Your task to perform on an android device: Open Maps and search for coffee Image 0: 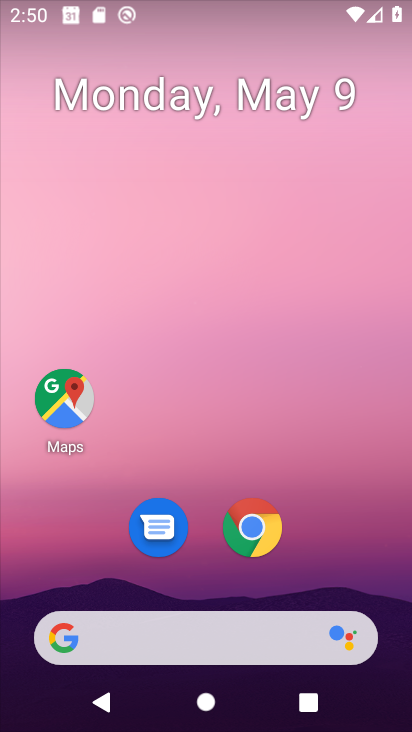
Step 0: drag from (248, 626) to (291, 1)
Your task to perform on an android device: Open Maps and search for coffee Image 1: 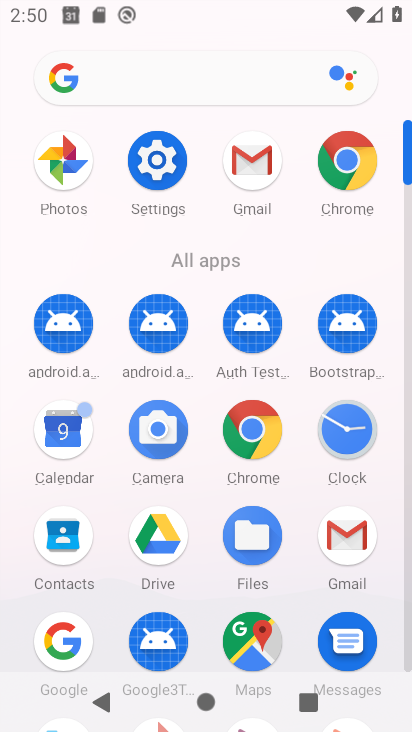
Step 1: drag from (213, 473) to (204, 280)
Your task to perform on an android device: Open Maps and search for coffee Image 2: 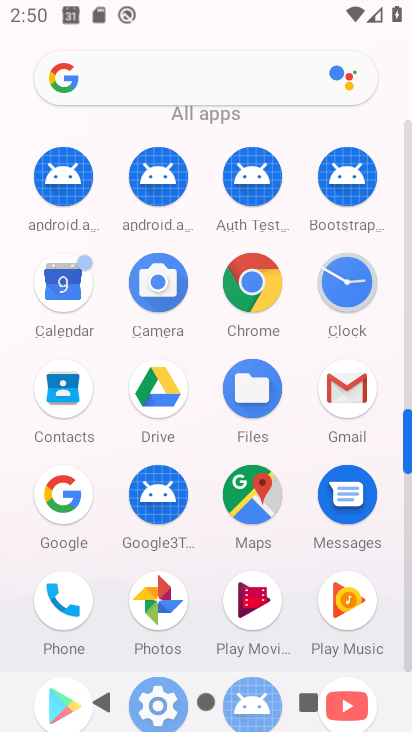
Step 2: click (259, 519)
Your task to perform on an android device: Open Maps and search for coffee Image 3: 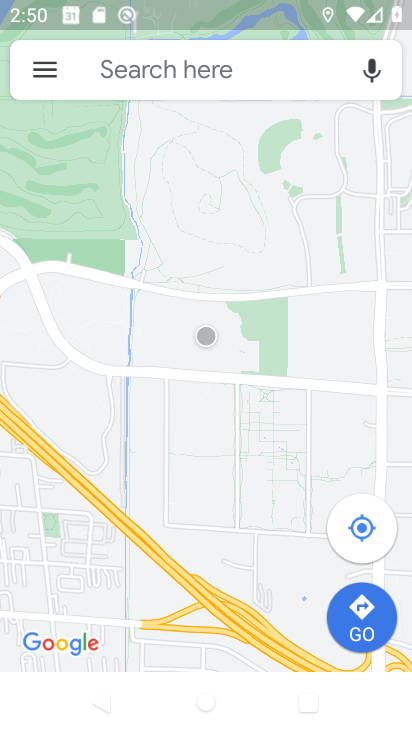
Step 3: click (163, 73)
Your task to perform on an android device: Open Maps and search for coffee Image 4: 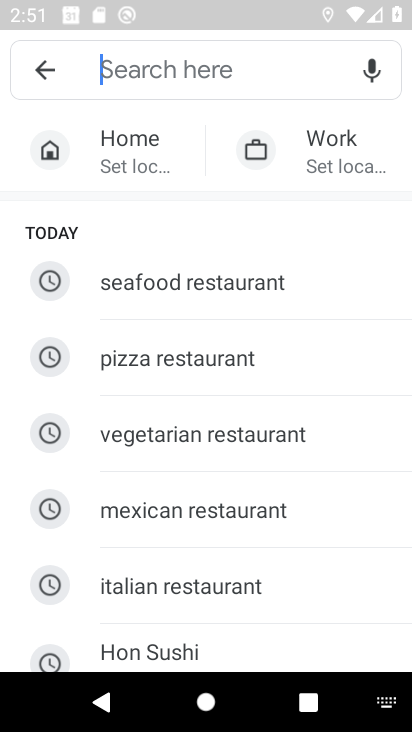
Step 4: type "coffee"
Your task to perform on an android device: Open Maps and search for coffee Image 5: 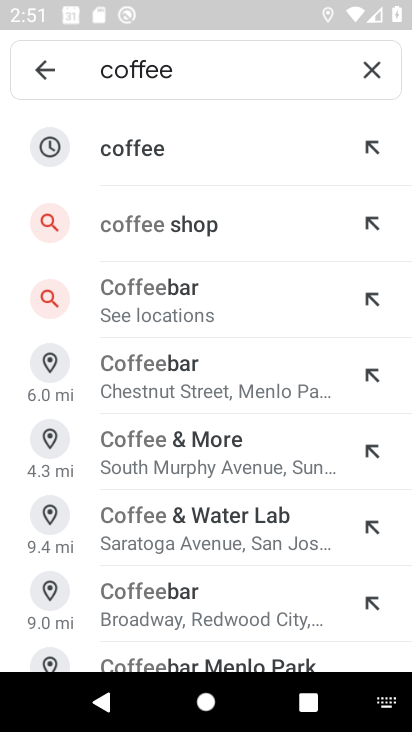
Step 5: click (261, 161)
Your task to perform on an android device: Open Maps and search for coffee Image 6: 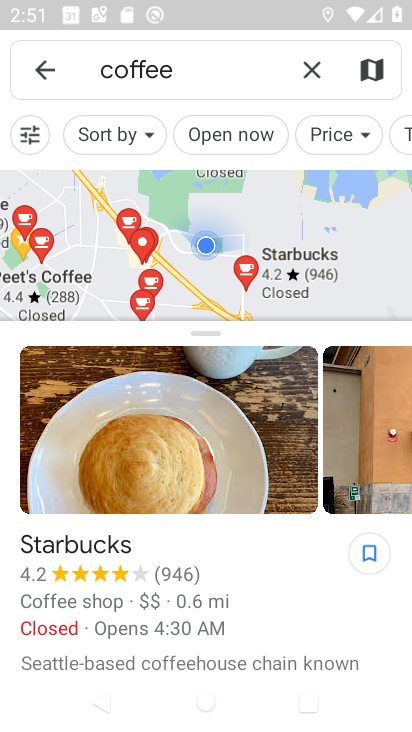
Step 6: task complete